Your task to perform on an android device: Open Google Maps Image 0: 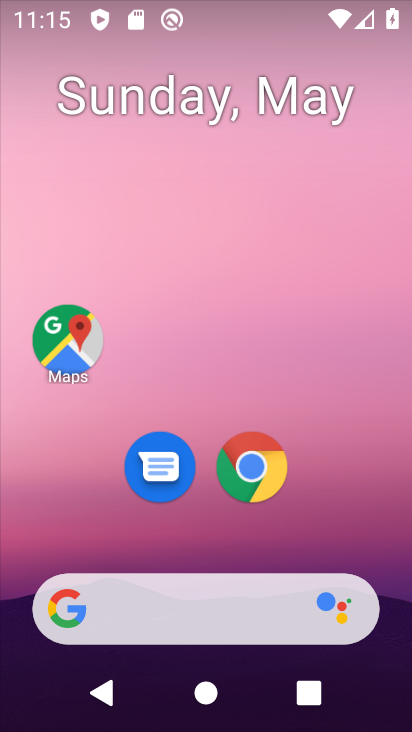
Step 0: click (72, 337)
Your task to perform on an android device: Open Google Maps Image 1: 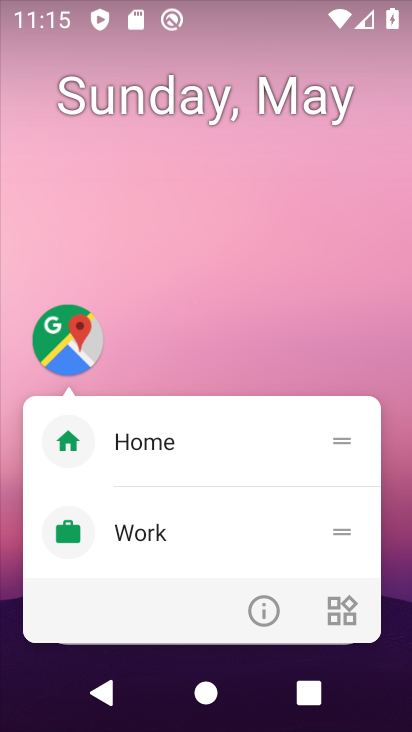
Step 1: click (271, 598)
Your task to perform on an android device: Open Google Maps Image 2: 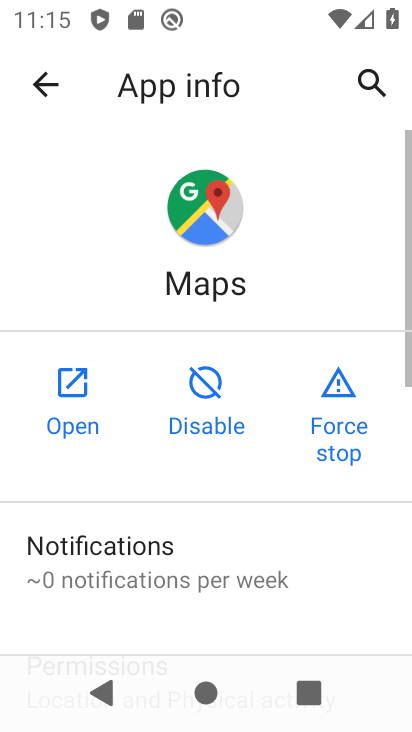
Step 2: click (82, 395)
Your task to perform on an android device: Open Google Maps Image 3: 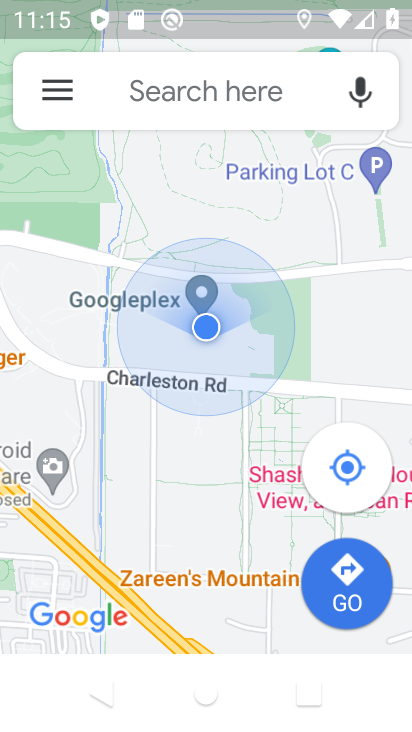
Step 3: task complete